Your task to perform on an android device: Show me popular videos on Youtube Image 0: 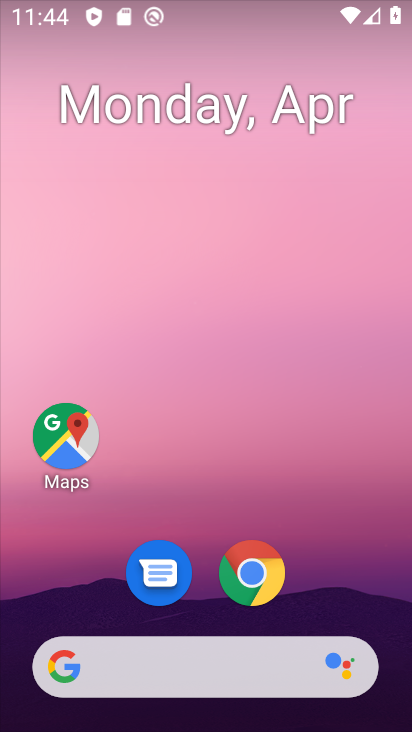
Step 0: drag from (214, 627) to (205, 146)
Your task to perform on an android device: Show me popular videos on Youtube Image 1: 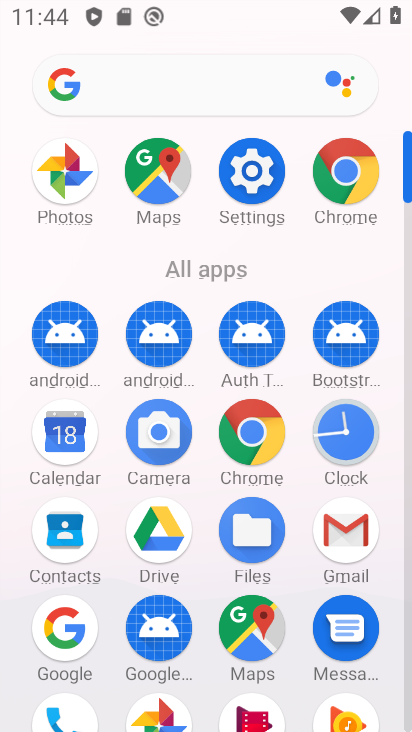
Step 1: drag from (290, 583) to (264, 91)
Your task to perform on an android device: Show me popular videos on Youtube Image 2: 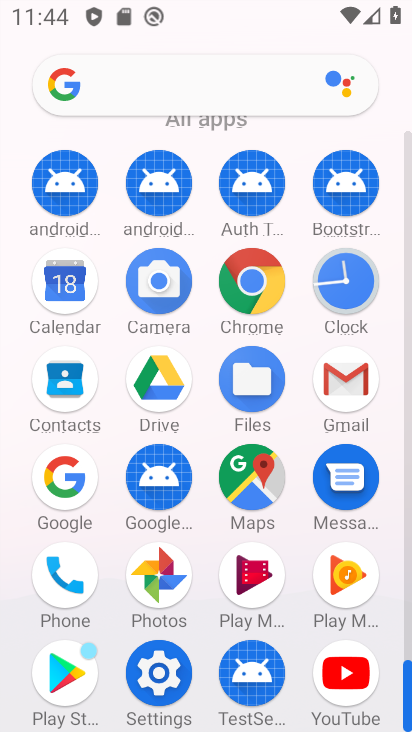
Step 2: click (335, 691)
Your task to perform on an android device: Show me popular videos on Youtube Image 3: 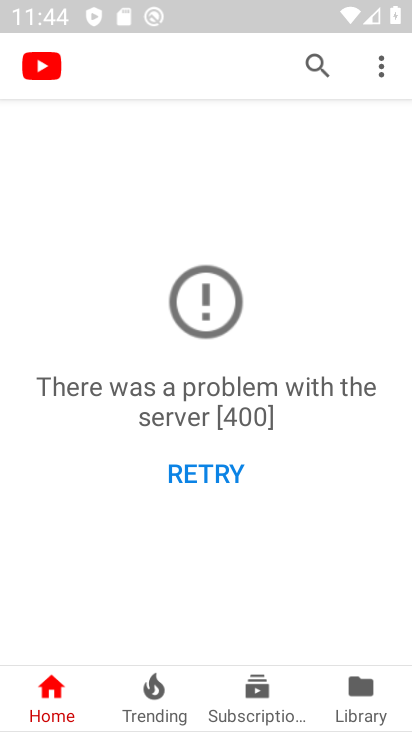
Step 3: click (167, 698)
Your task to perform on an android device: Show me popular videos on Youtube Image 4: 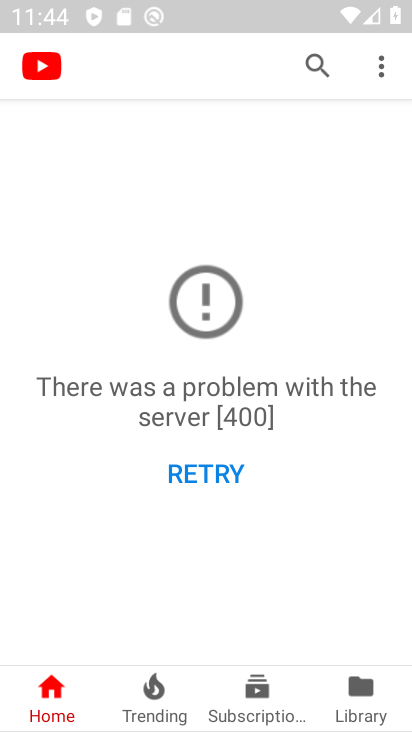
Step 4: click (192, 492)
Your task to perform on an android device: Show me popular videos on Youtube Image 5: 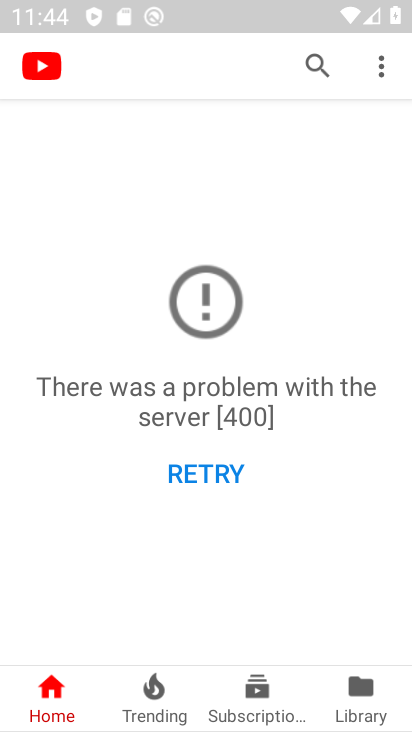
Step 5: click (194, 482)
Your task to perform on an android device: Show me popular videos on Youtube Image 6: 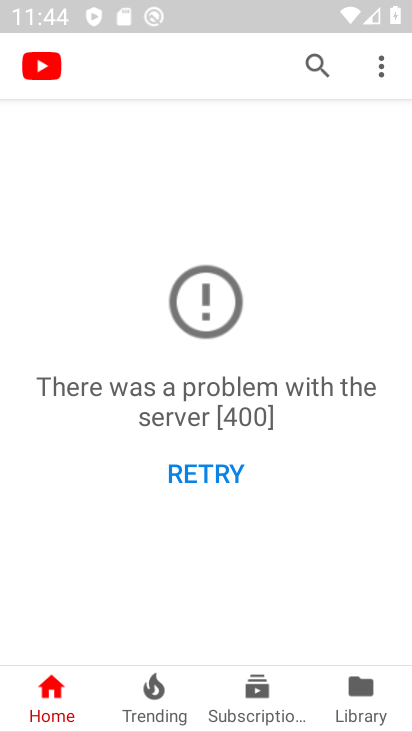
Step 6: task complete